Your task to perform on an android device: turn on bluetooth scan Image 0: 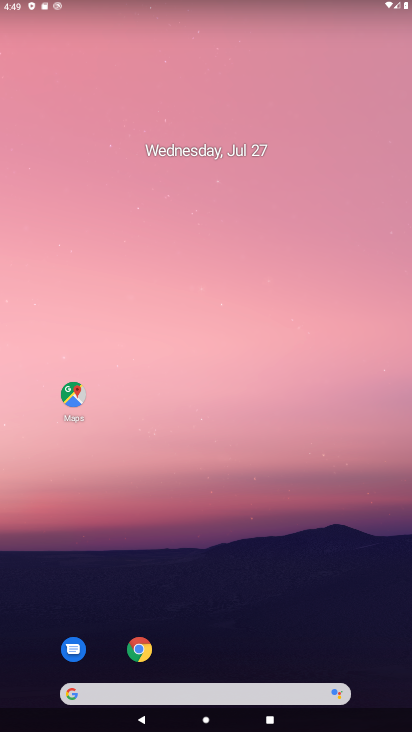
Step 0: drag from (176, 695) to (301, 22)
Your task to perform on an android device: turn on bluetooth scan Image 1: 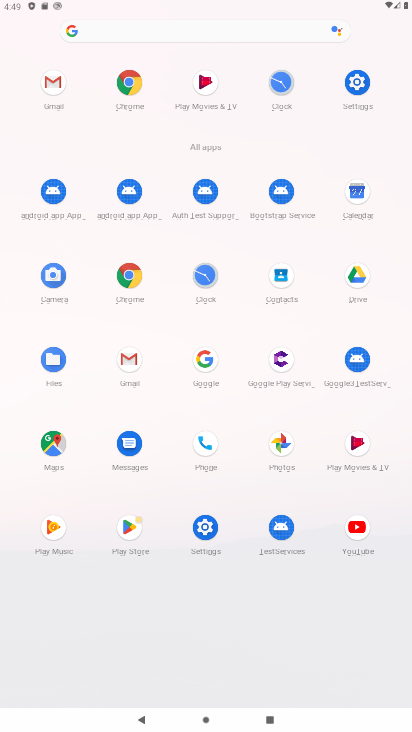
Step 1: click (356, 83)
Your task to perform on an android device: turn on bluetooth scan Image 2: 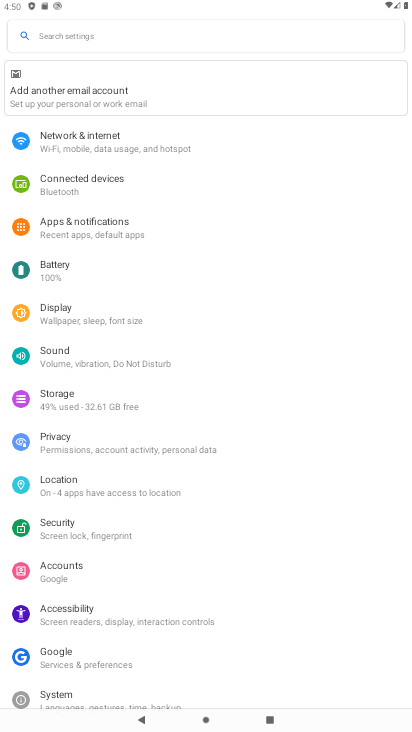
Step 2: click (65, 486)
Your task to perform on an android device: turn on bluetooth scan Image 3: 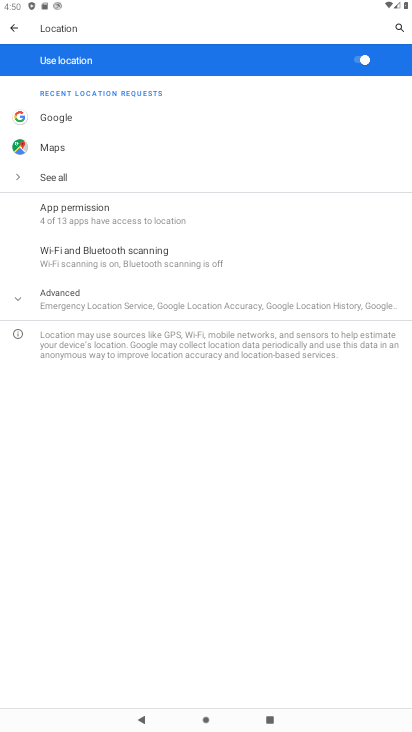
Step 3: click (146, 258)
Your task to perform on an android device: turn on bluetooth scan Image 4: 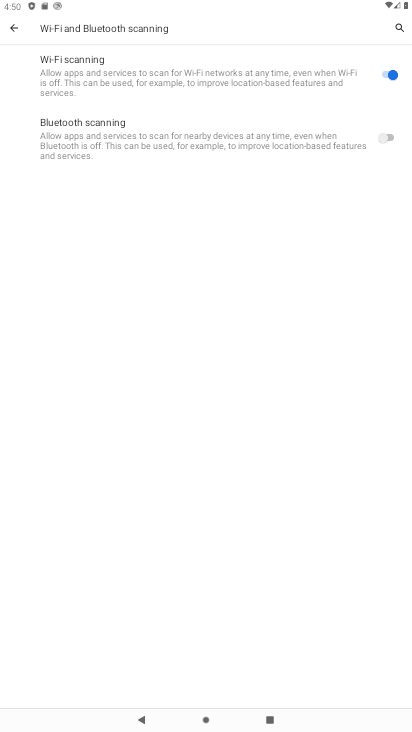
Step 4: click (379, 137)
Your task to perform on an android device: turn on bluetooth scan Image 5: 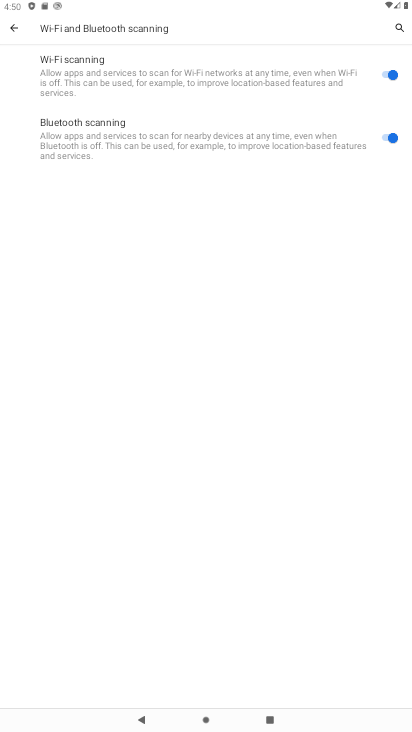
Step 5: task complete